Your task to perform on an android device: Go to Google Image 0: 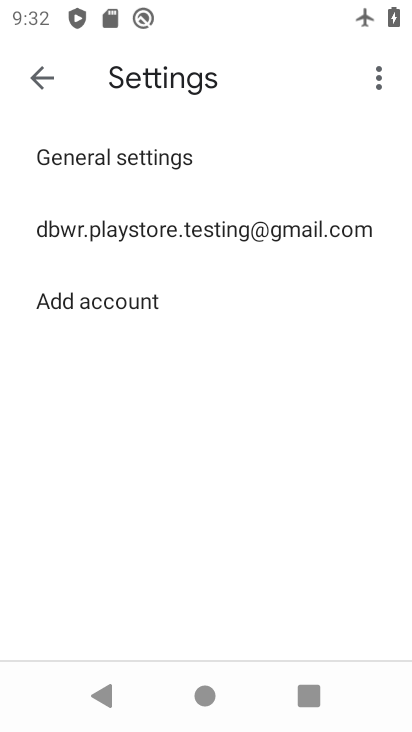
Step 0: press home button
Your task to perform on an android device: Go to Google Image 1: 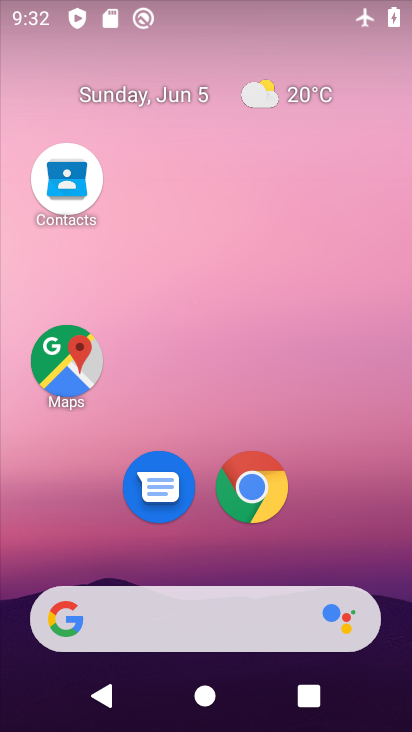
Step 1: drag from (238, 512) to (286, 242)
Your task to perform on an android device: Go to Google Image 2: 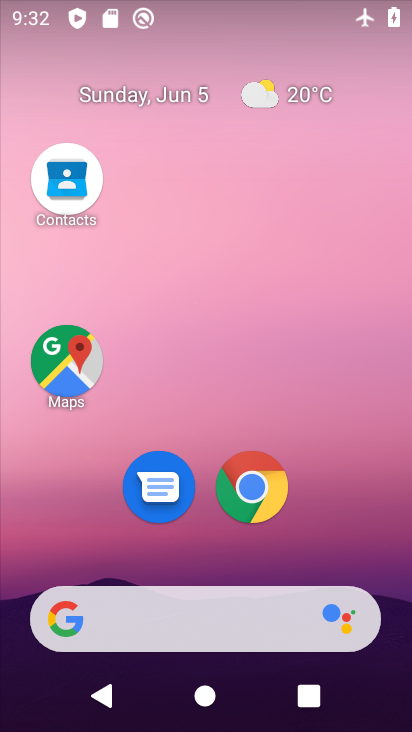
Step 2: drag from (209, 602) to (334, 141)
Your task to perform on an android device: Go to Google Image 3: 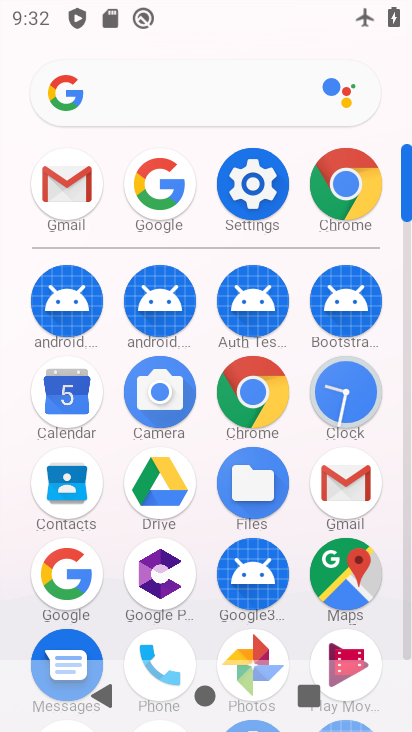
Step 3: drag from (212, 503) to (297, 279)
Your task to perform on an android device: Go to Google Image 4: 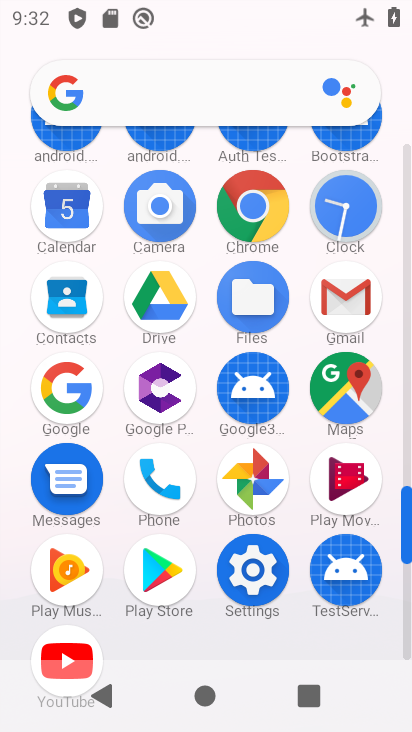
Step 4: click (68, 381)
Your task to perform on an android device: Go to Google Image 5: 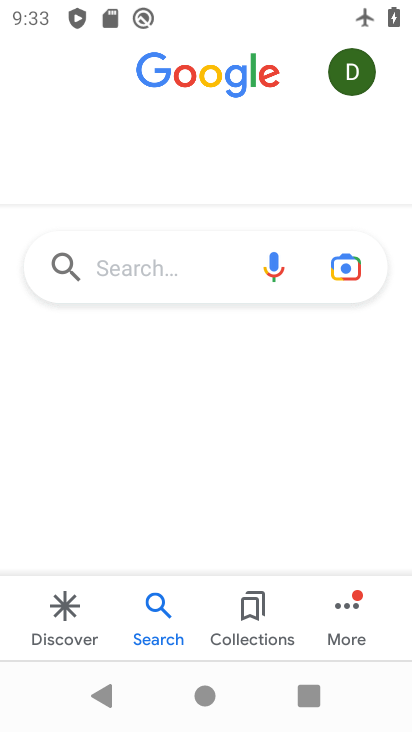
Step 5: task complete